Your task to perform on an android device: toggle sleep mode Image 0: 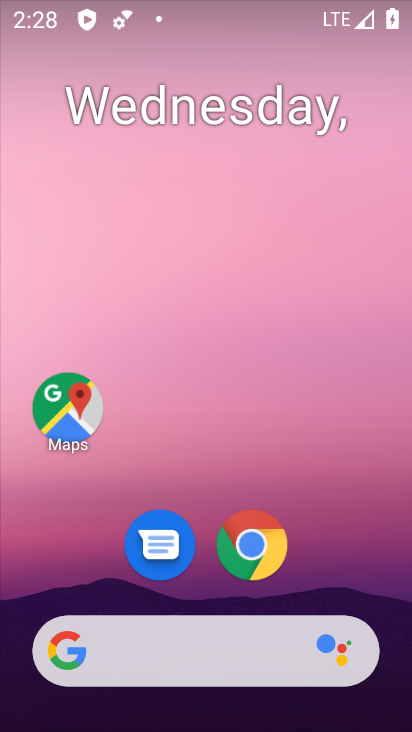
Step 0: drag from (307, 559) to (231, 70)
Your task to perform on an android device: toggle sleep mode Image 1: 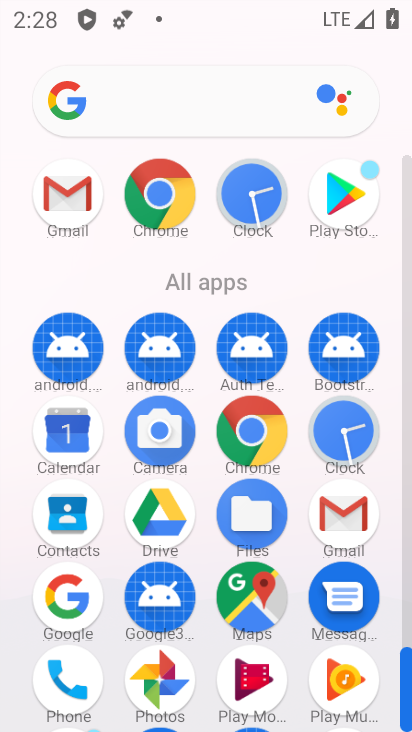
Step 1: drag from (279, 612) to (267, 277)
Your task to perform on an android device: toggle sleep mode Image 2: 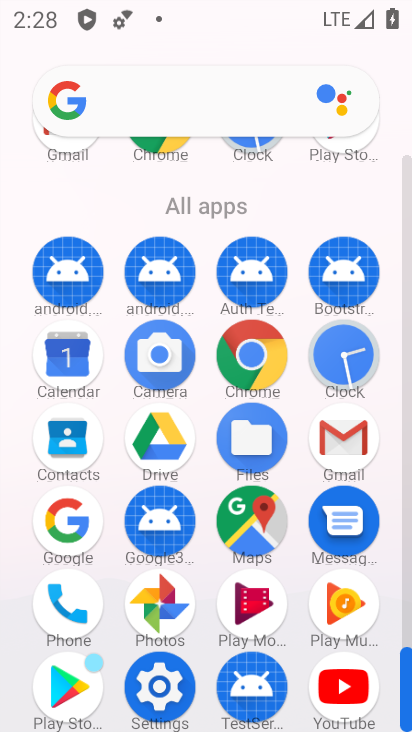
Step 2: click (153, 682)
Your task to perform on an android device: toggle sleep mode Image 3: 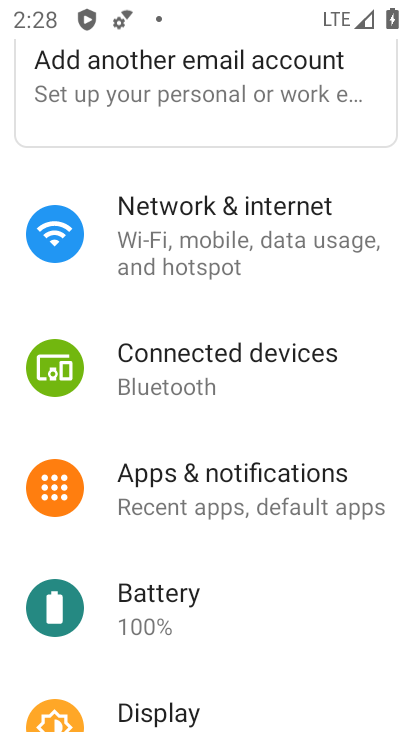
Step 3: task complete